Your task to perform on an android device: Open calendar and show me the first week of next month Image 0: 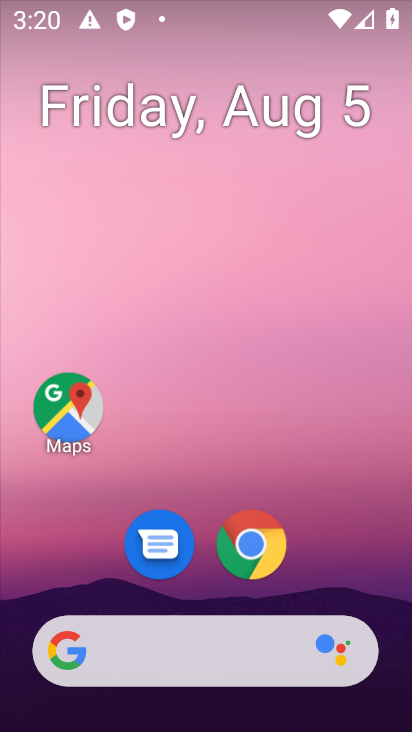
Step 0: drag from (222, 594) to (222, 143)
Your task to perform on an android device: Open calendar and show me the first week of next month Image 1: 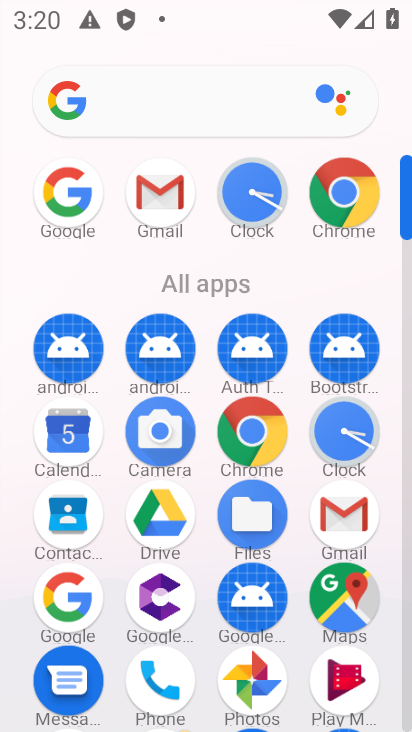
Step 1: click (71, 427)
Your task to perform on an android device: Open calendar and show me the first week of next month Image 2: 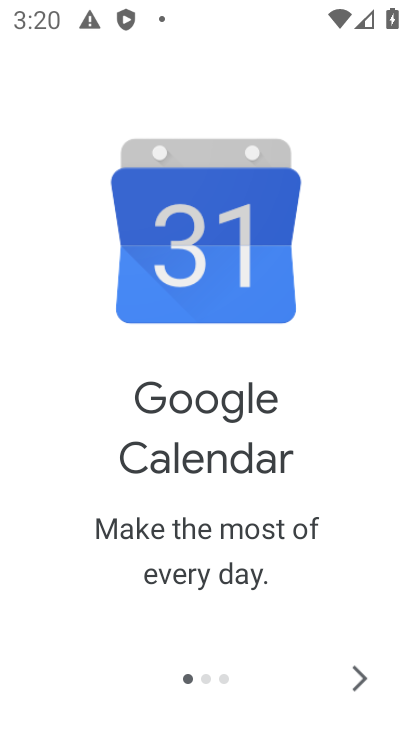
Step 2: click (366, 675)
Your task to perform on an android device: Open calendar and show me the first week of next month Image 3: 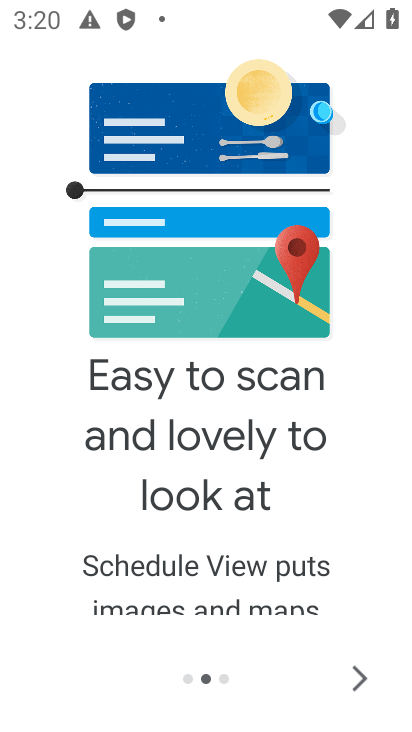
Step 3: click (366, 675)
Your task to perform on an android device: Open calendar and show me the first week of next month Image 4: 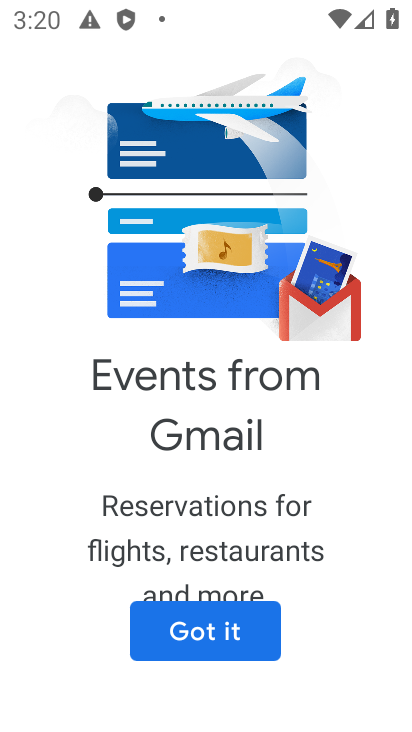
Step 4: click (177, 643)
Your task to perform on an android device: Open calendar and show me the first week of next month Image 5: 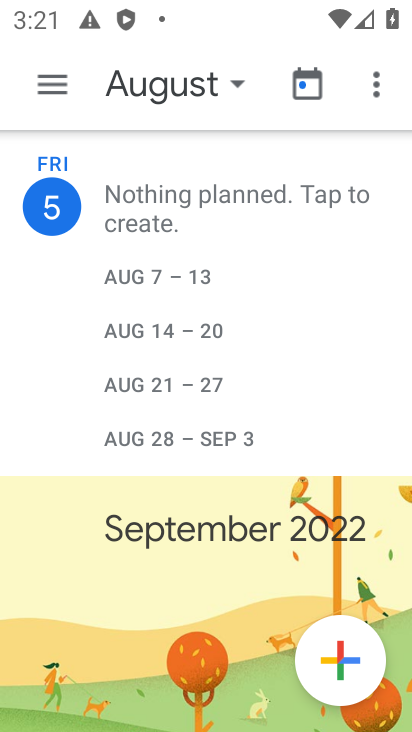
Step 5: click (197, 79)
Your task to perform on an android device: Open calendar and show me the first week of next month Image 6: 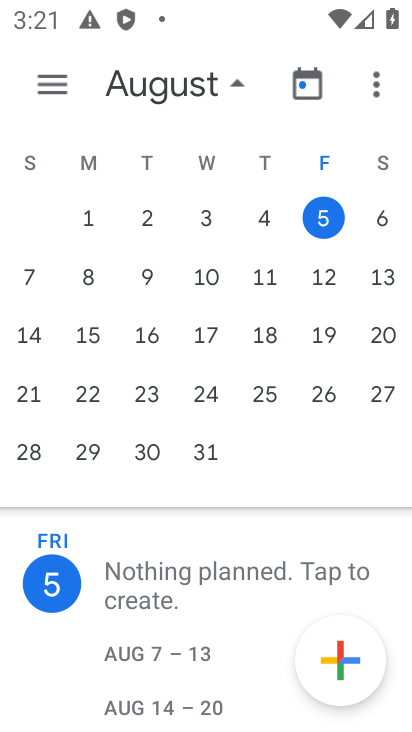
Step 6: drag from (381, 414) to (41, 424)
Your task to perform on an android device: Open calendar and show me the first week of next month Image 7: 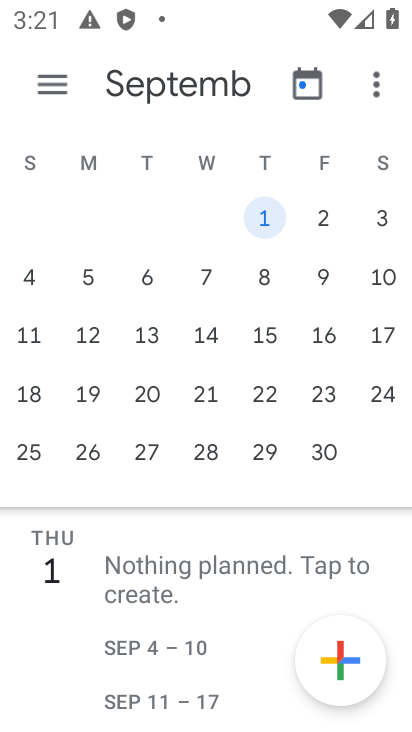
Step 7: click (263, 211)
Your task to perform on an android device: Open calendar and show me the first week of next month Image 8: 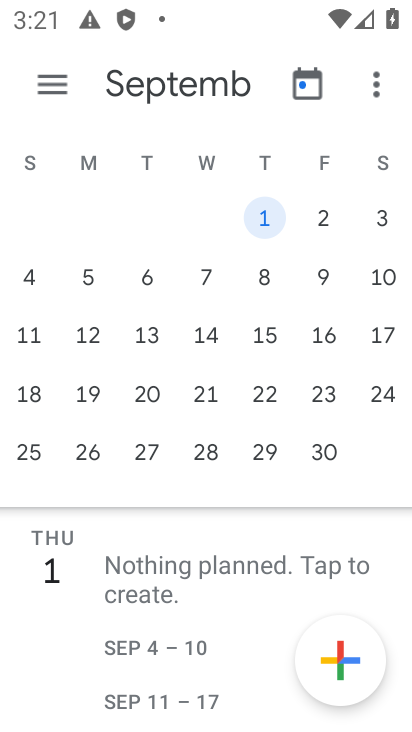
Step 8: task complete